Your task to perform on an android device: Show me productivity apps on the Play Store Image 0: 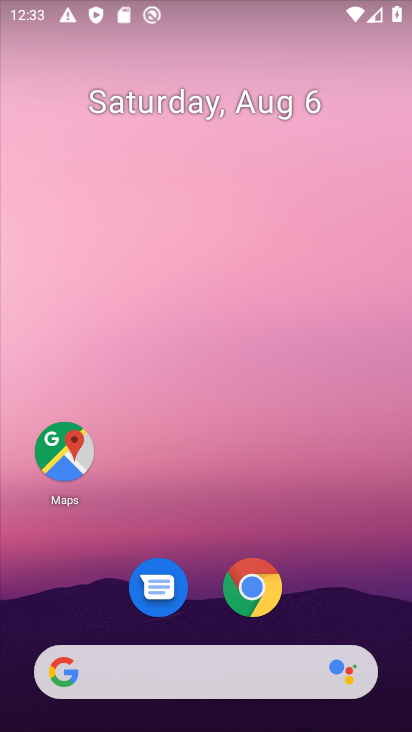
Step 0: drag from (332, 549) to (331, 91)
Your task to perform on an android device: Show me productivity apps on the Play Store Image 1: 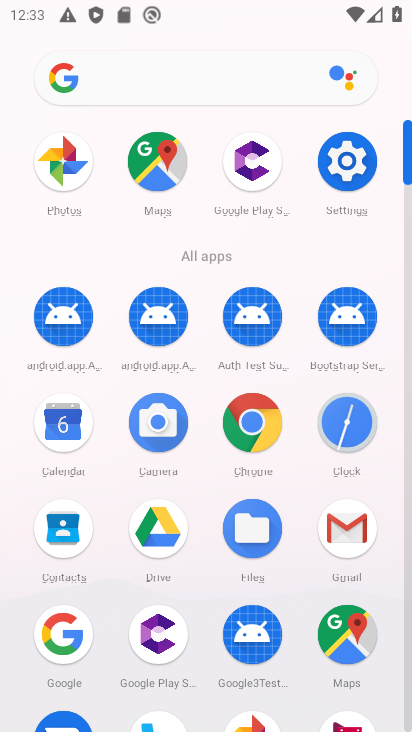
Step 1: drag from (210, 589) to (210, 219)
Your task to perform on an android device: Show me productivity apps on the Play Store Image 2: 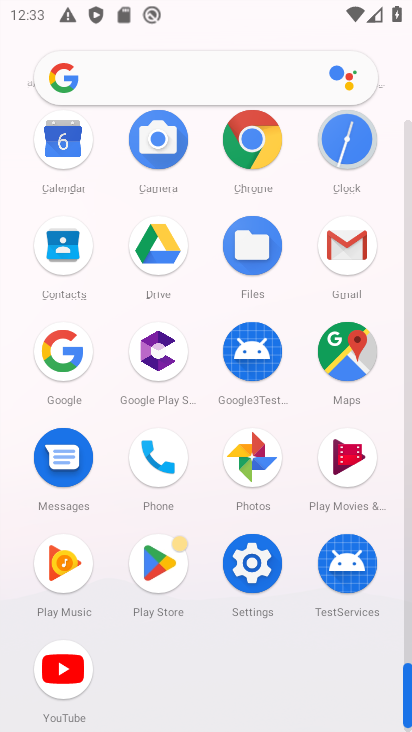
Step 2: click (151, 568)
Your task to perform on an android device: Show me productivity apps on the Play Store Image 3: 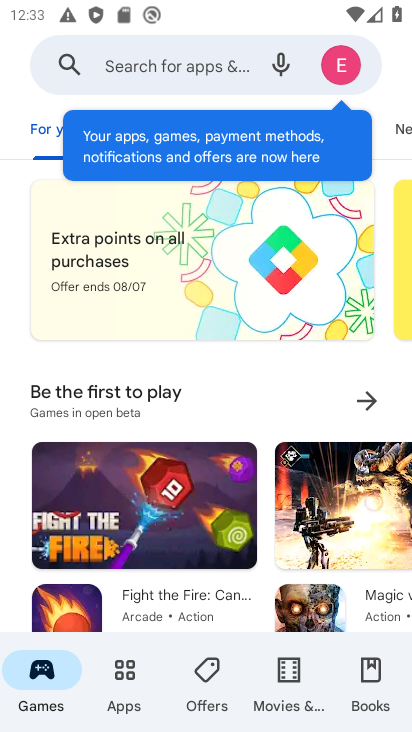
Step 3: click (130, 673)
Your task to perform on an android device: Show me productivity apps on the Play Store Image 4: 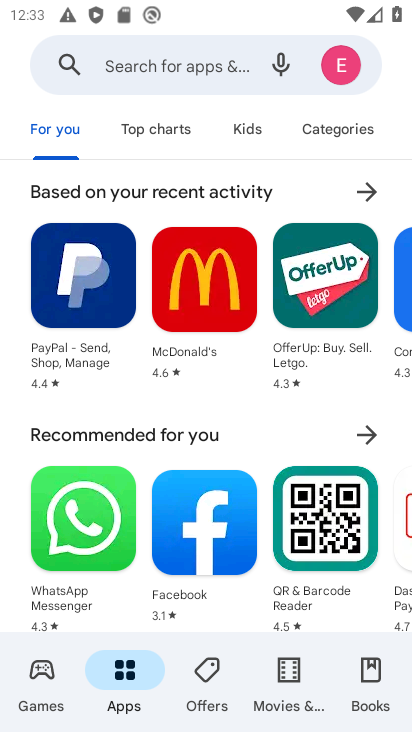
Step 4: drag from (261, 427) to (270, 270)
Your task to perform on an android device: Show me productivity apps on the Play Store Image 5: 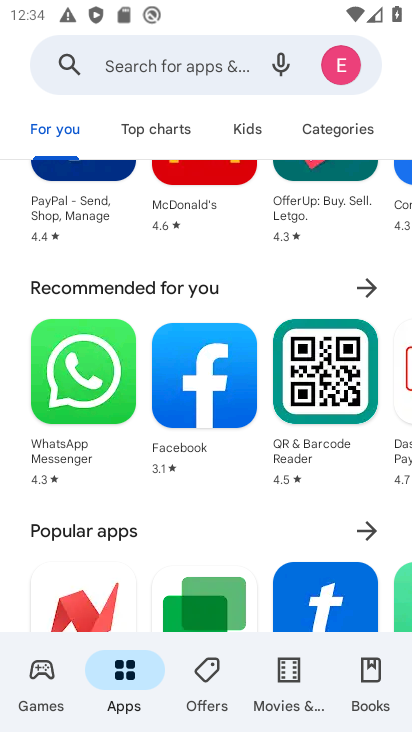
Step 5: click (331, 132)
Your task to perform on an android device: Show me productivity apps on the Play Store Image 6: 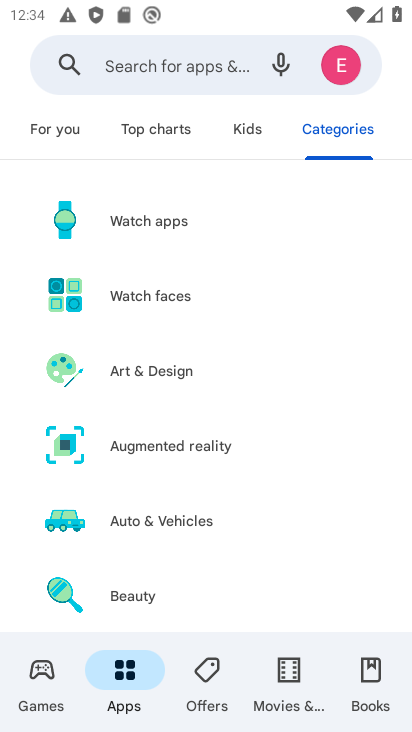
Step 6: drag from (212, 439) to (246, 37)
Your task to perform on an android device: Show me productivity apps on the Play Store Image 7: 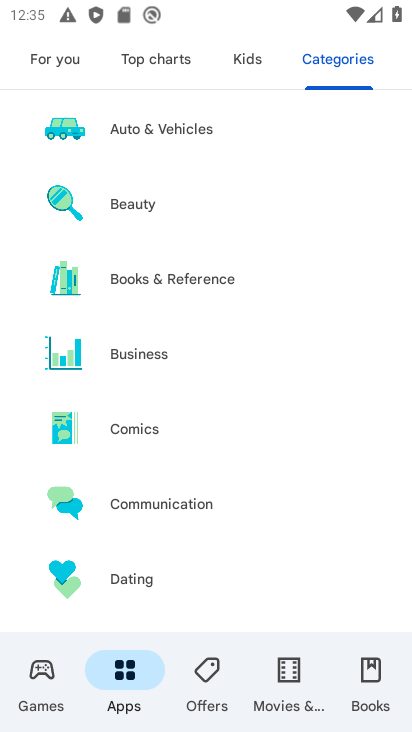
Step 7: drag from (263, 542) to (260, 231)
Your task to perform on an android device: Show me productivity apps on the Play Store Image 8: 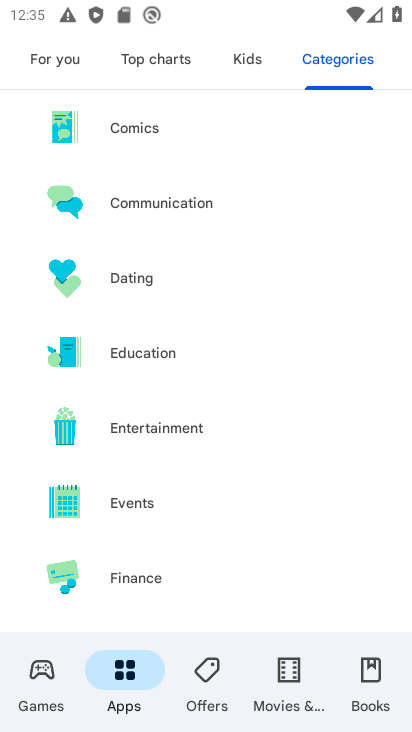
Step 8: drag from (250, 590) to (234, 207)
Your task to perform on an android device: Show me productivity apps on the Play Store Image 9: 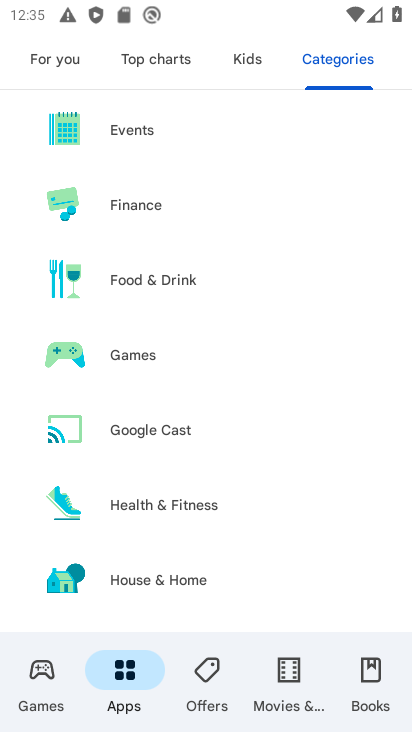
Step 9: drag from (218, 471) to (221, 112)
Your task to perform on an android device: Show me productivity apps on the Play Store Image 10: 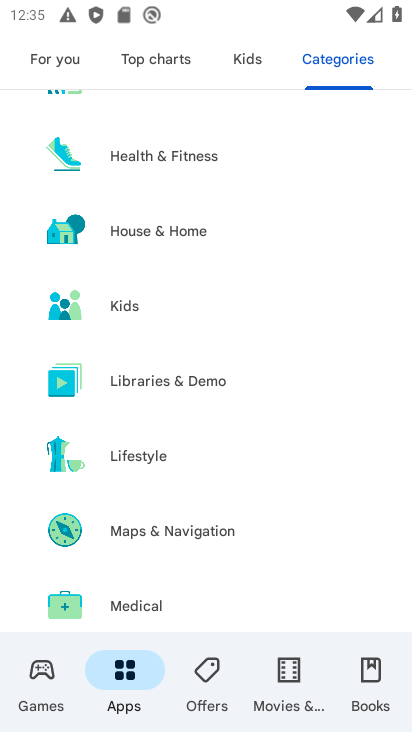
Step 10: drag from (200, 563) to (177, 212)
Your task to perform on an android device: Show me productivity apps on the Play Store Image 11: 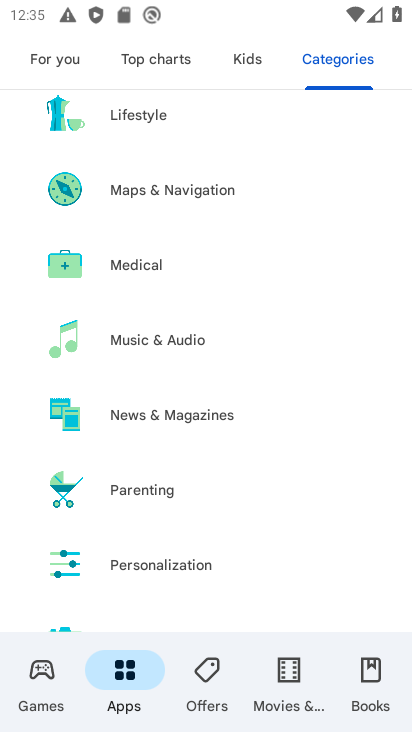
Step 11: drag from (165, 495) to (170, 174)
Your task to perform on an android device: Show me productivity apps on the Play Store Image 12: 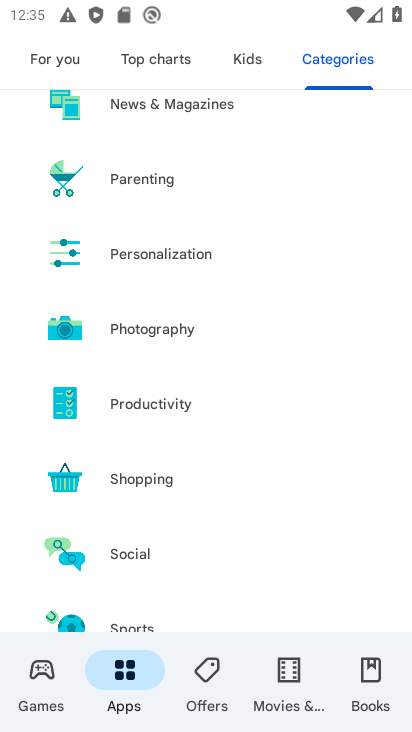
Step 12: click (156, 409)
Your task to perform on an android device: Show me productivity apps on the Play Store Image 13: 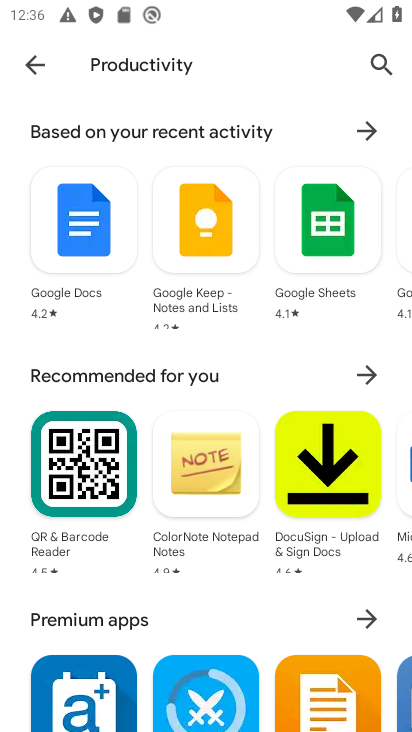
Step 13: task complete